Your task to perform on an android device: toggle notification dots Image 0: 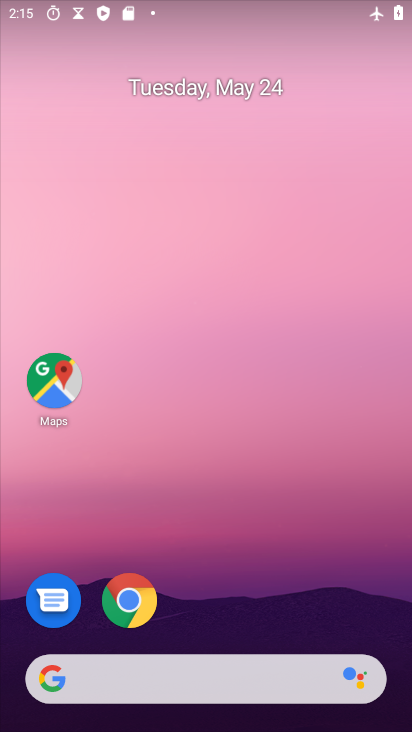
Step 0: drag from (288, 484) to (218, 27)
Your task to perform on an android device: toggle notification dots Image 1: 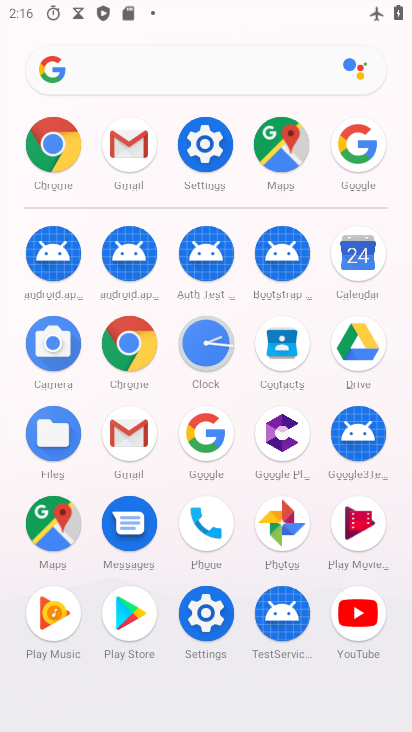
Step 1: click (211, 140)
Your task to perform on an android device: toggle notification dots Image 2: 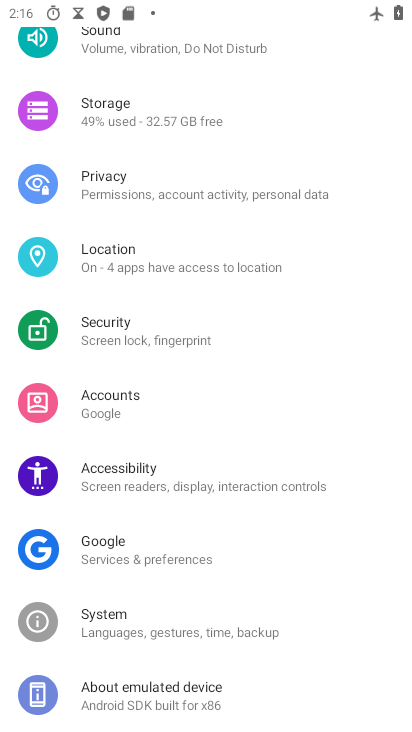
Step 2: drag from (240, 115) to (229, 557)
Your task to perform on an android device: toggle notification dots Image 3: 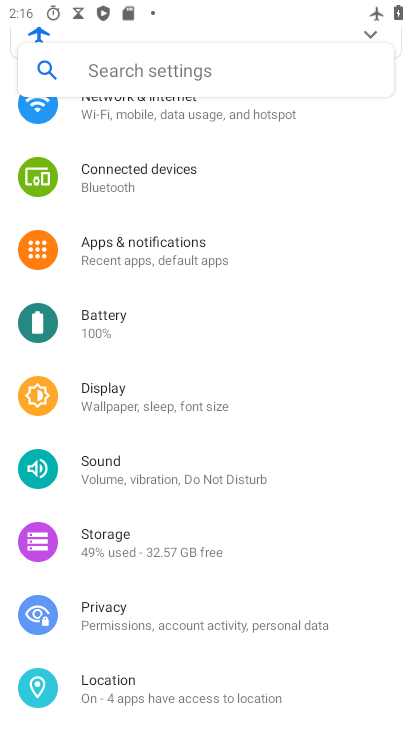
Step 3: click (161, 242)
Your task to perform on an android device: toggle notification dots Image 4: 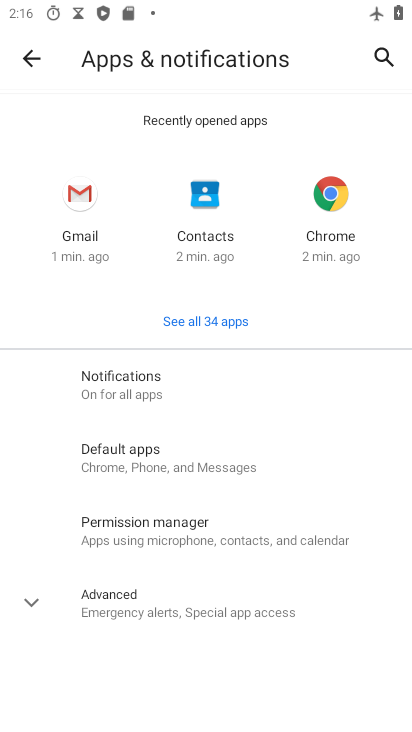
Step 4: click (212, 387)
Your task to perform on an android device: toggle notification dots Image 5: 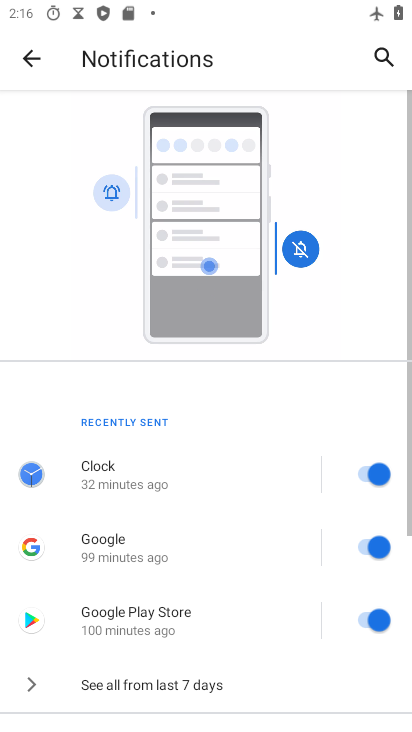
Step 5: drag from (276, 676) to (216, 176)
Your task to perform on an android device: toggle notification dots Image 6: 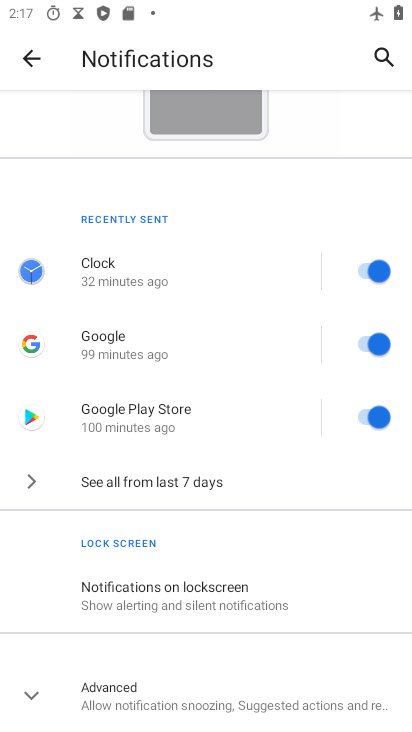
Step 6: click (226, 694)
Your task to perform on an android device: toggle notification dots Image 7: 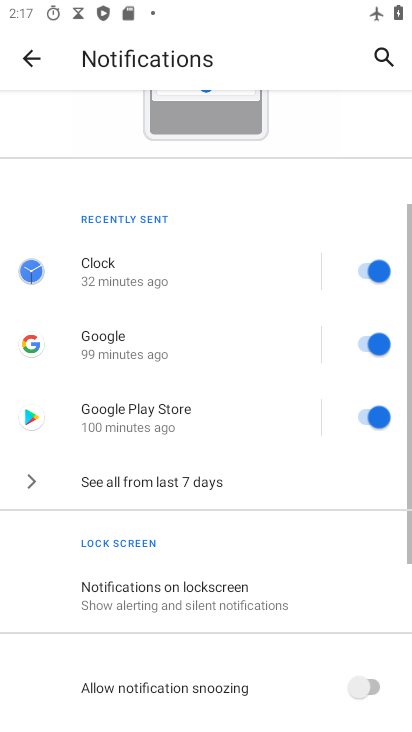
Step 7: drag from (244, 673) to (261, 249)
Your task to perform on an android device: toggle notification dots Image 8: 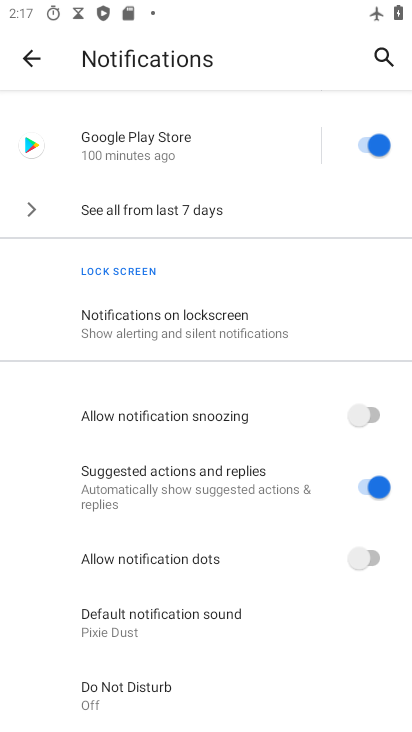
Step 8: click (366, 555)
Your task to perform on an android device: toggle notification dots Image 9: 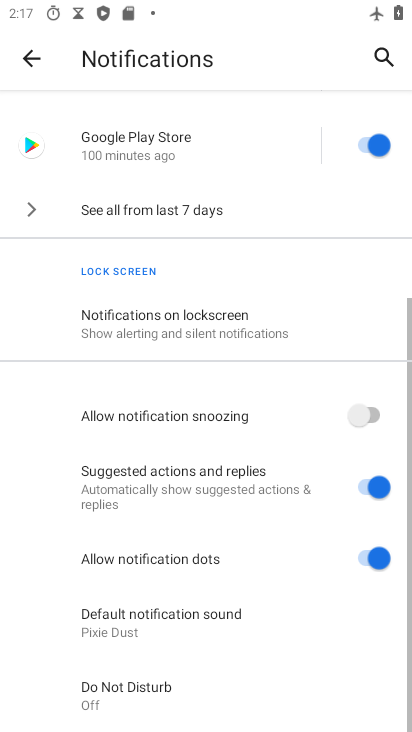
Step 9: task complete